Your task to perform on an android device: Show the shopping cart on bestbuy. Add asus rog to the cart on bestbuy Image 0: 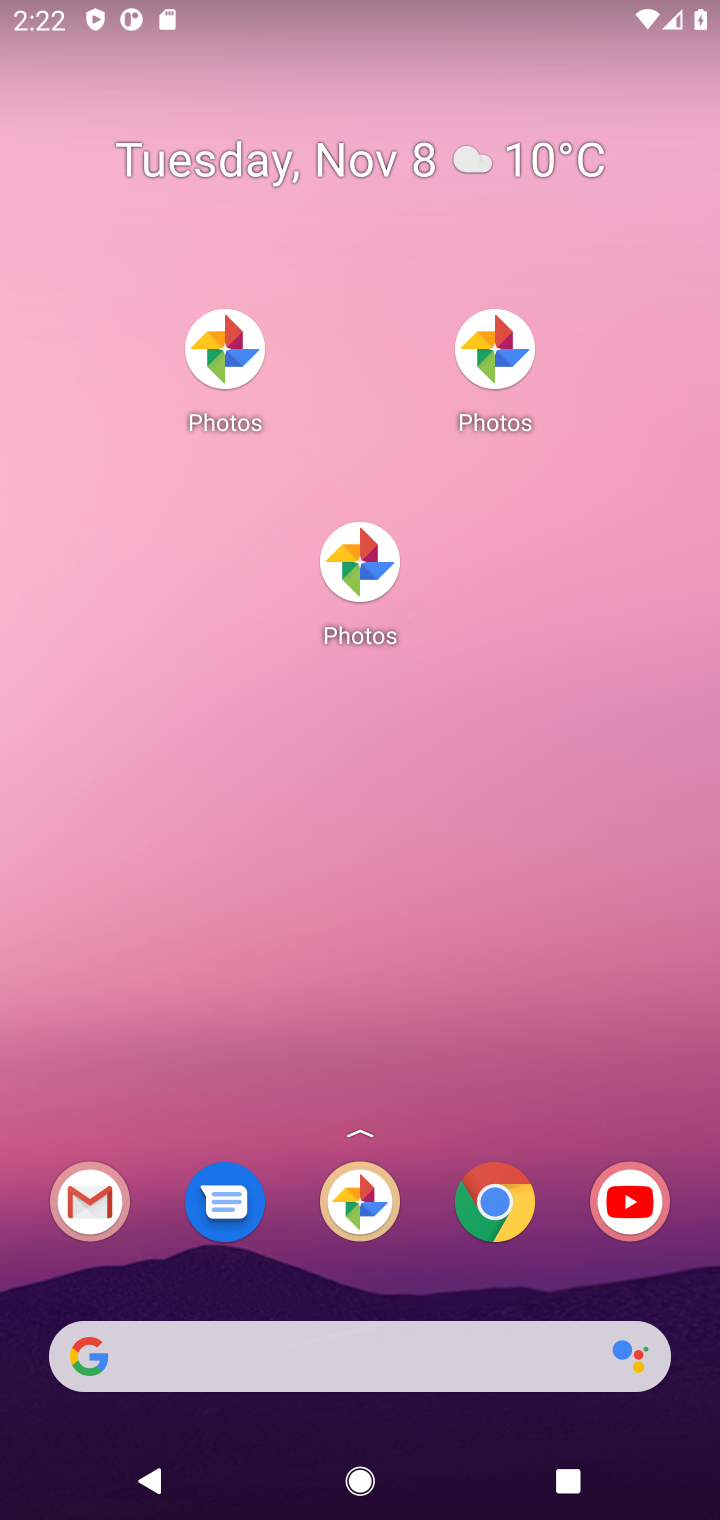
Step 0: drag from (393, 856) to (502, 0)
Your task to perform on an android device: Show the shopping cart on bestbuy. Add asus rog to the cart on bestbuy Image 1: 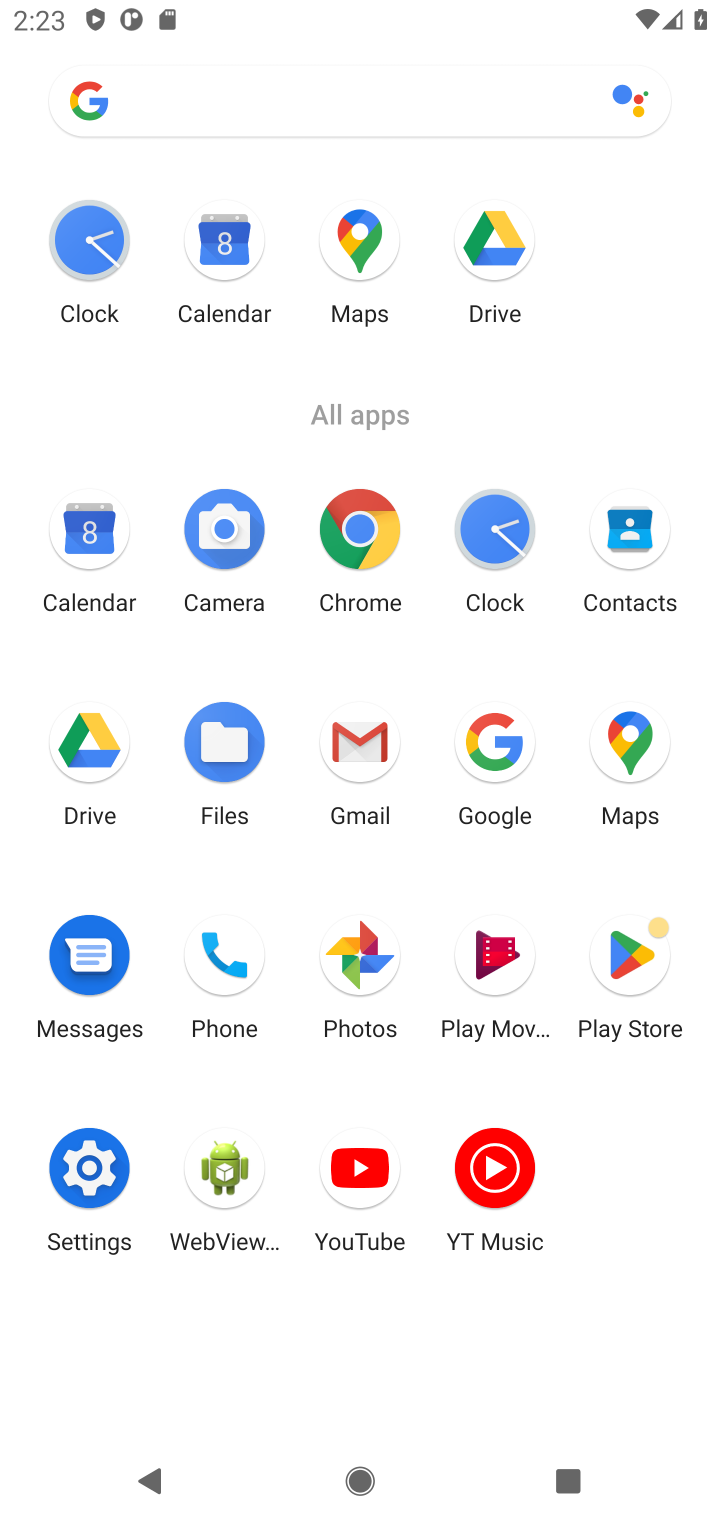
Step 1: click (504, 773)
Your task to perform on an android device: Show the shopping cart on bestbuy. Add asus rog to the cart on bestbuy Image 2: 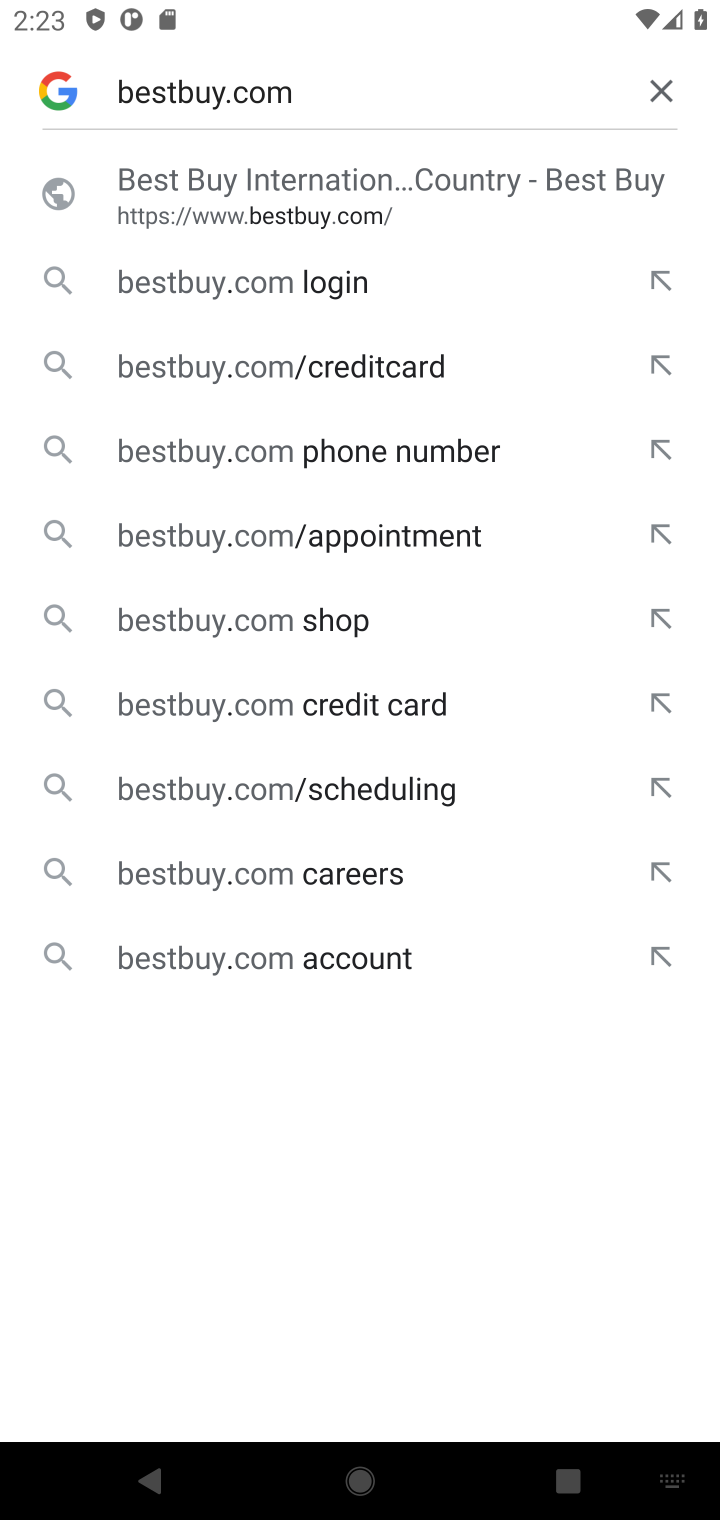
Step 2: click (362, 198)
Your task to perform on an android device: Show the shopping cart on bestbuy. Add asus rog to the cart on bestbuy Image 3: 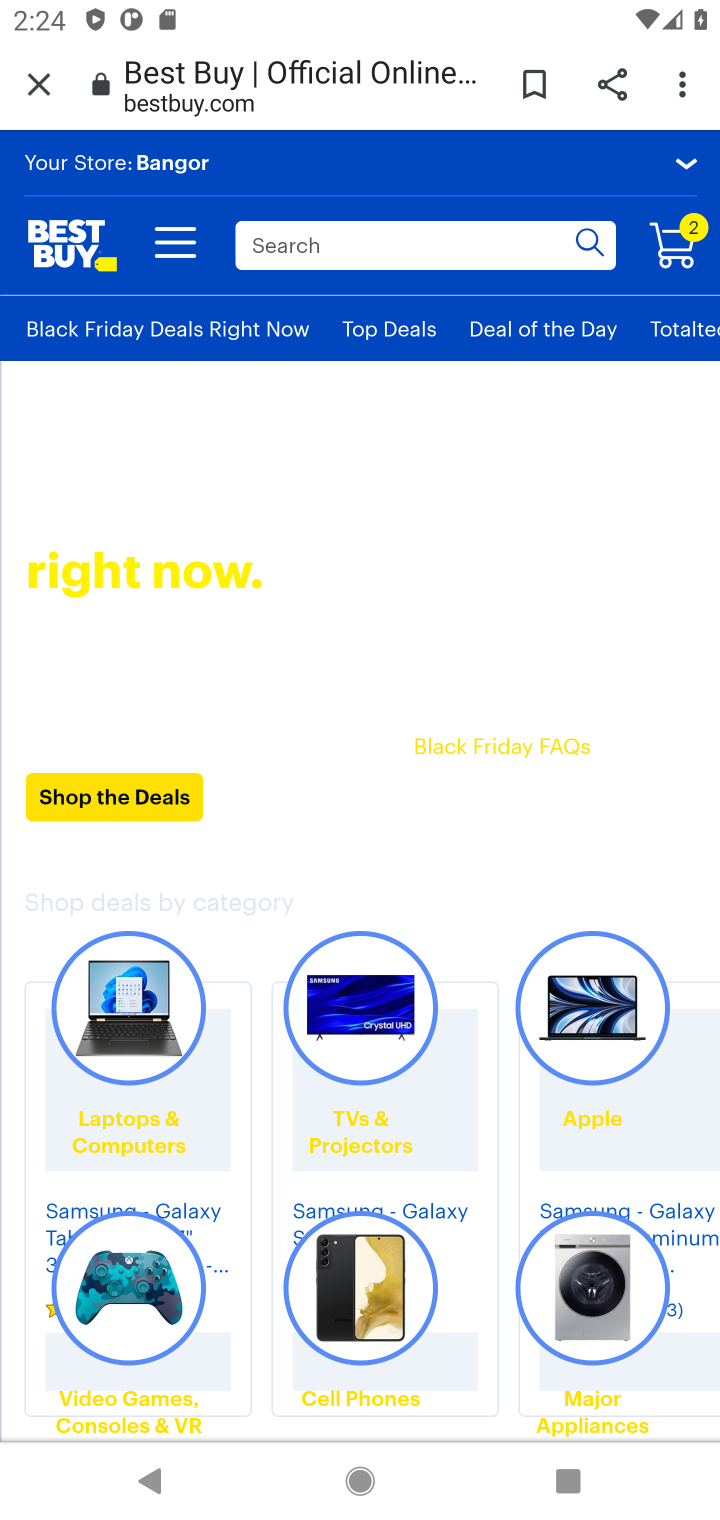
Step 3: click (362, 246)
Your task to perform on an android device: Show the shopping cart on bestbuy. Add asus rog to the cart on bestbuy Image 4: 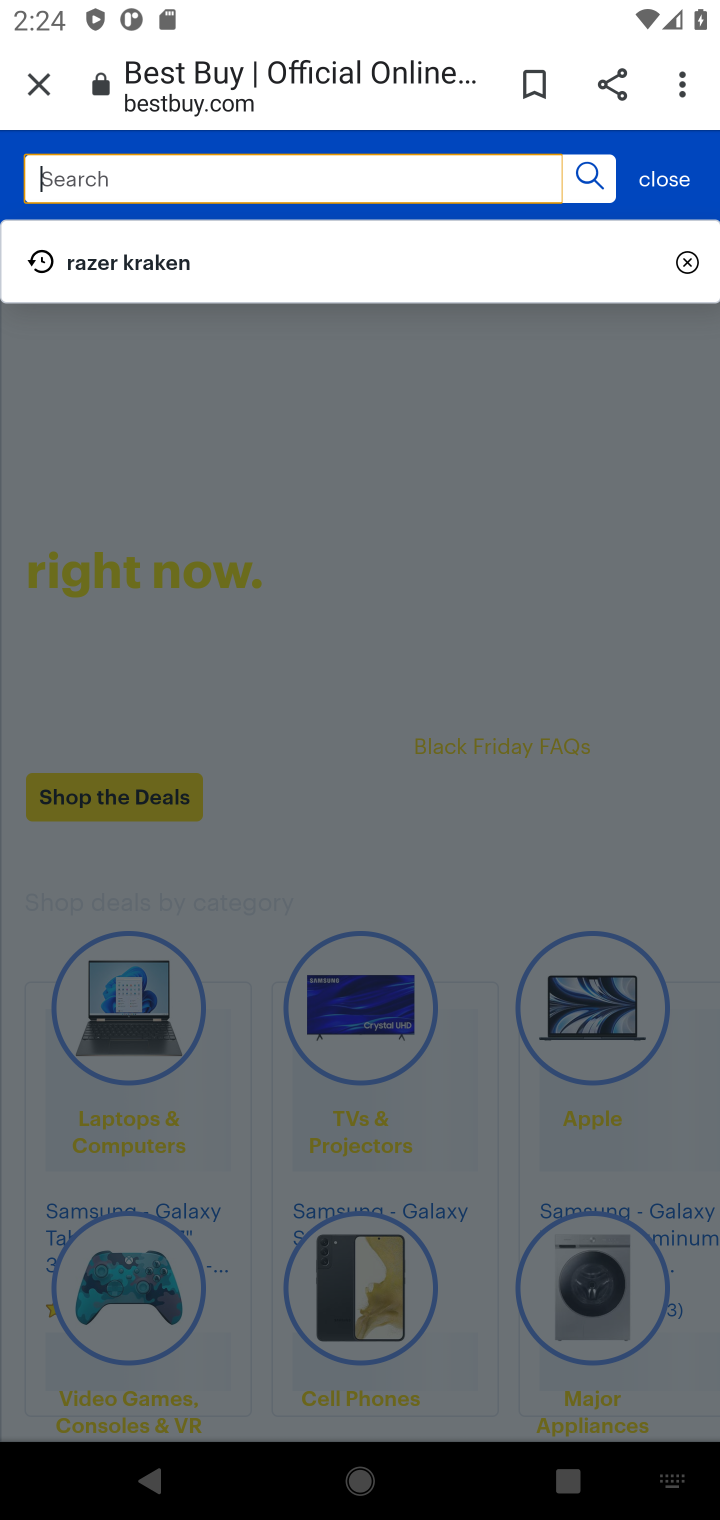
Step 4: type "asus rog"
Your task to perform on an android device: Show the shopping cart on bestbuy. Add asus rog to the cart on bestbuy Image 5: 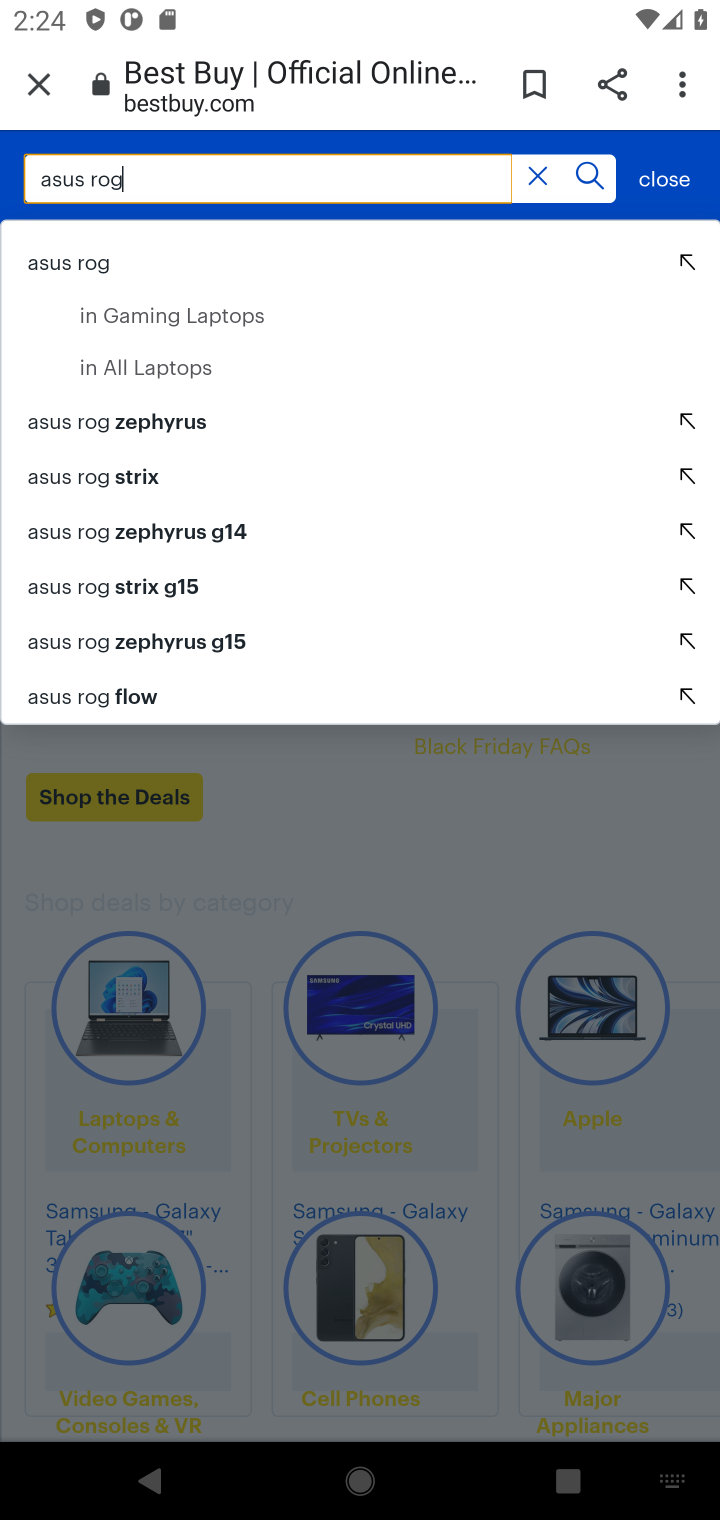
Step 5: click (393, 269)
Your task to perform on an android device: Show the shopping cart on bestbuy. Add asus rog to the cart on bestbuy Image 6: 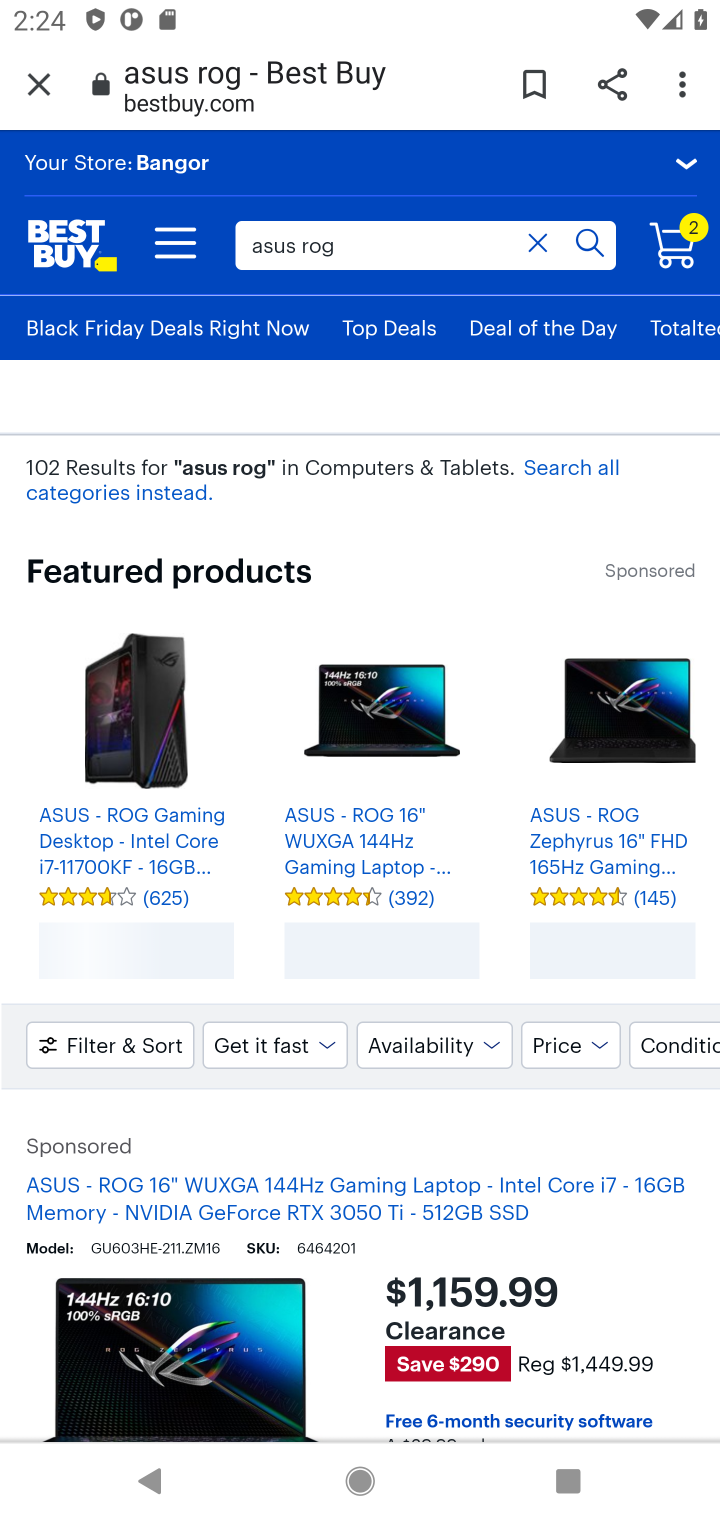
Step 6: click (588, 244)
Your task to perform on an android device: Show the shopping cart on bestbuy. Add asus rog to the cart on bestbuy Image 7: 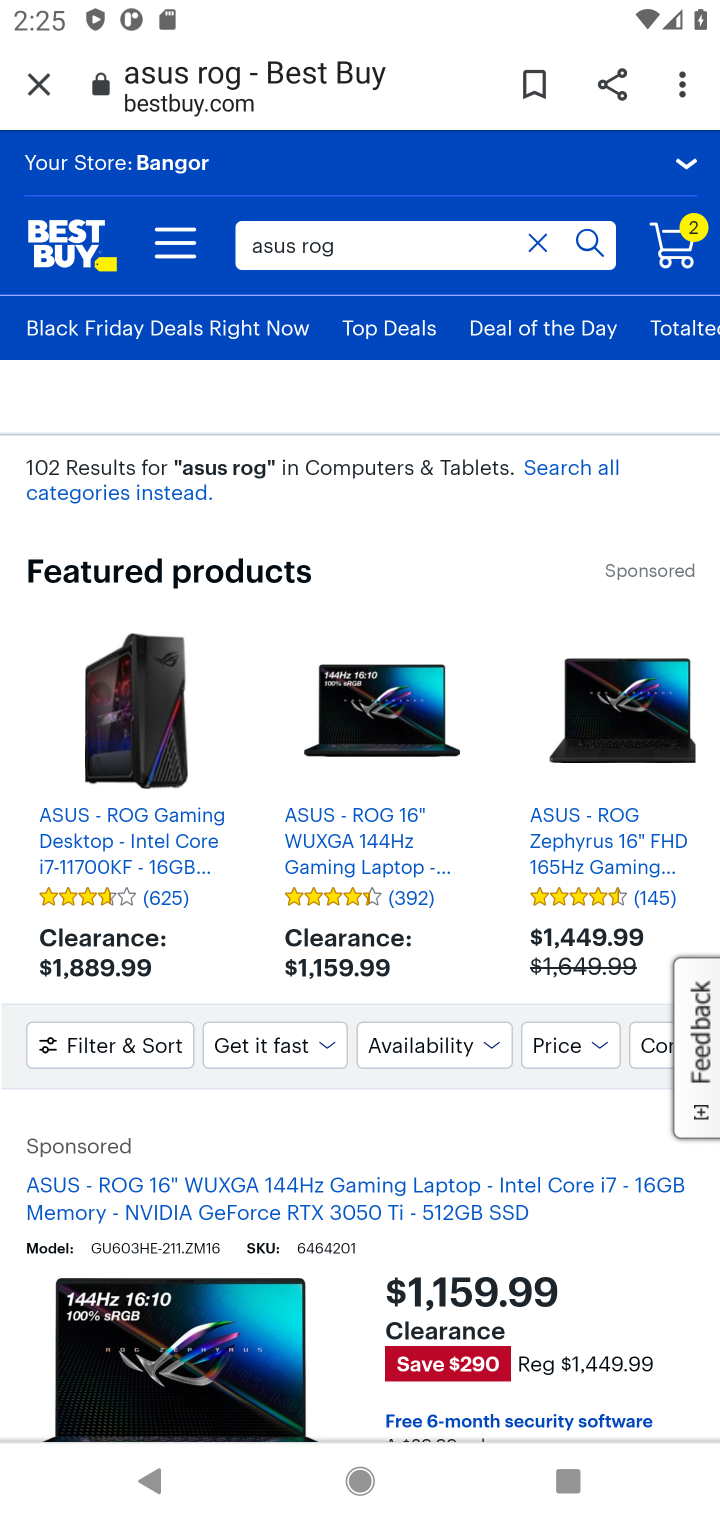
Step 7: click (135, 830)
Your task to perform on an android device: Show the shopping cart on bestbuy. Add asus rog to the cart on bestbuy Image 8: 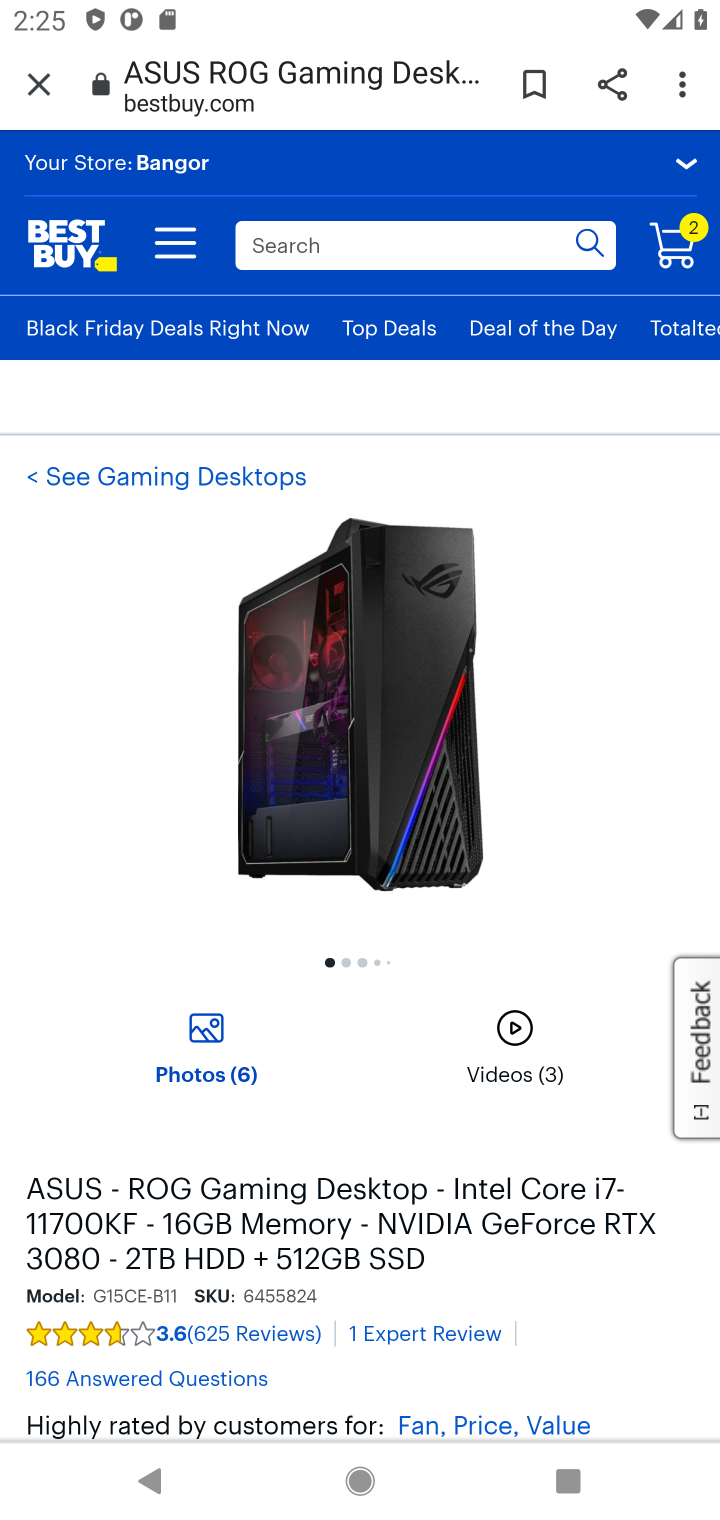
Step 8: drag from (333, 1201) to (330, 401)
Your task to perform on an android device: Show the shopping cart on bestbuy. Add asus rog to the cart on bestbuy Image 9: 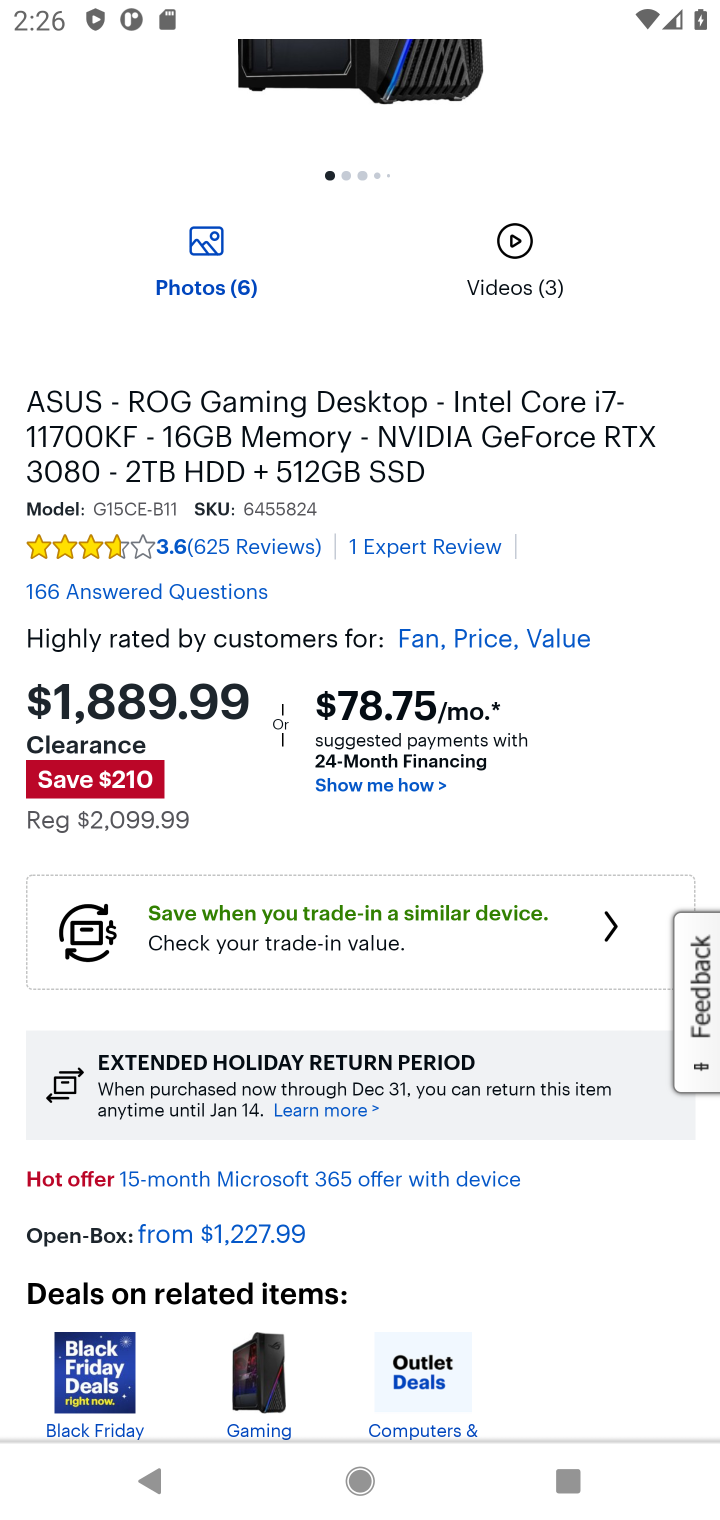
Step 9: drag from (334, 1074) to (336, 9)
Your task to perform on an android device: Show the shopping cart on bestbuy. Add asus rog to the cart on bestbuy Image 10: 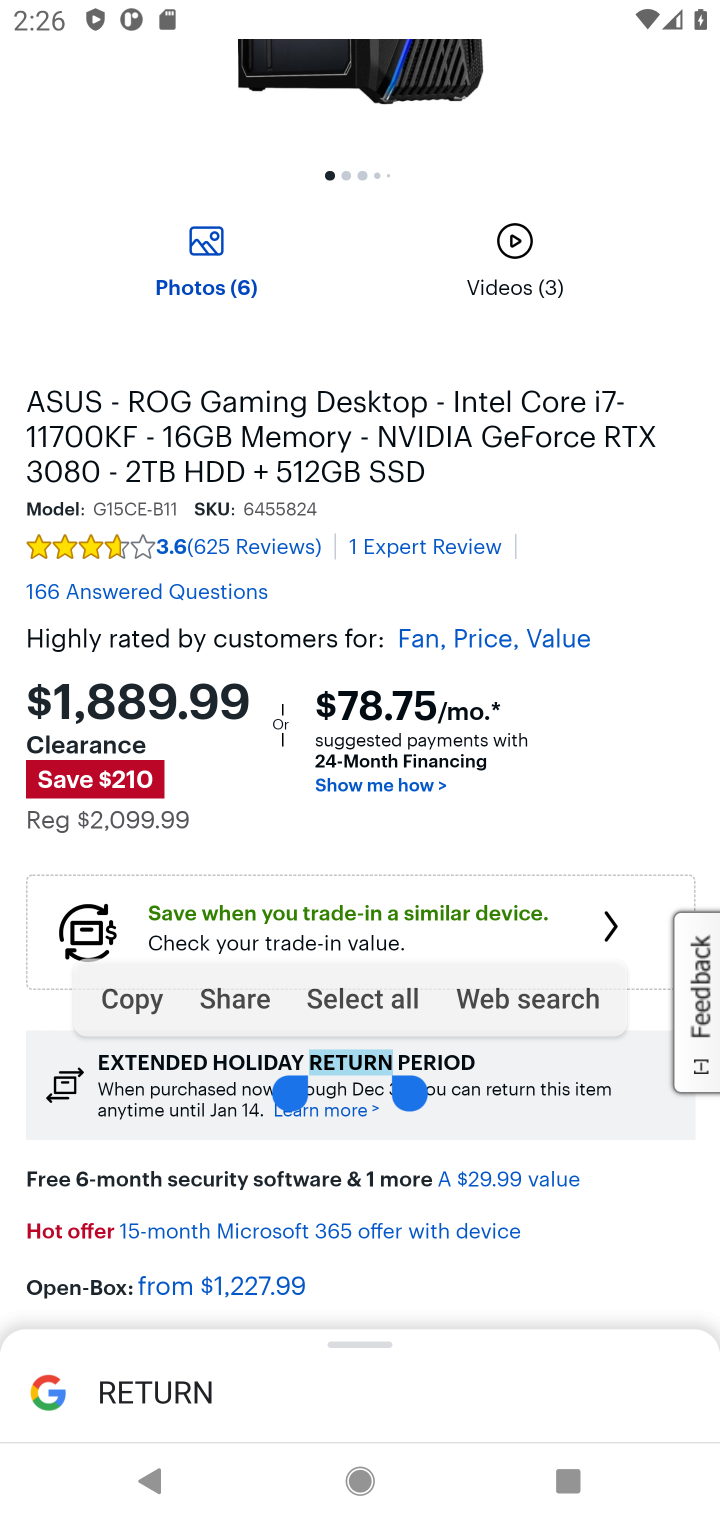
Step 10: click (476, 784)
Your task to perform on an android device: Show the shopping cart on bestbuy. Add asus rog to the cart on bestbuy Image 11: 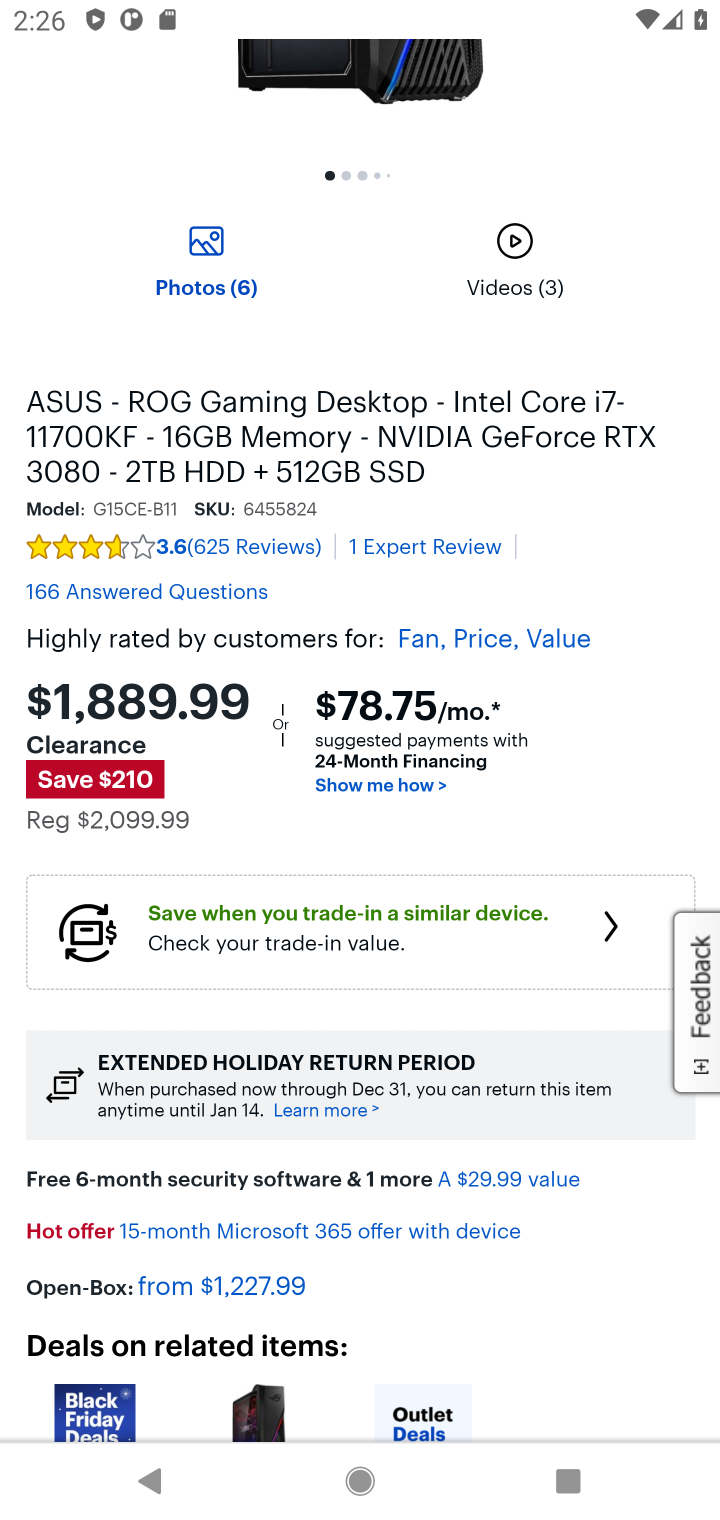
Step 11: click (498, 1111)
Your task to perform on an android device: Show the shopping cart on bestbuy. Add asus rog to the cart on bestbuy Image 12: 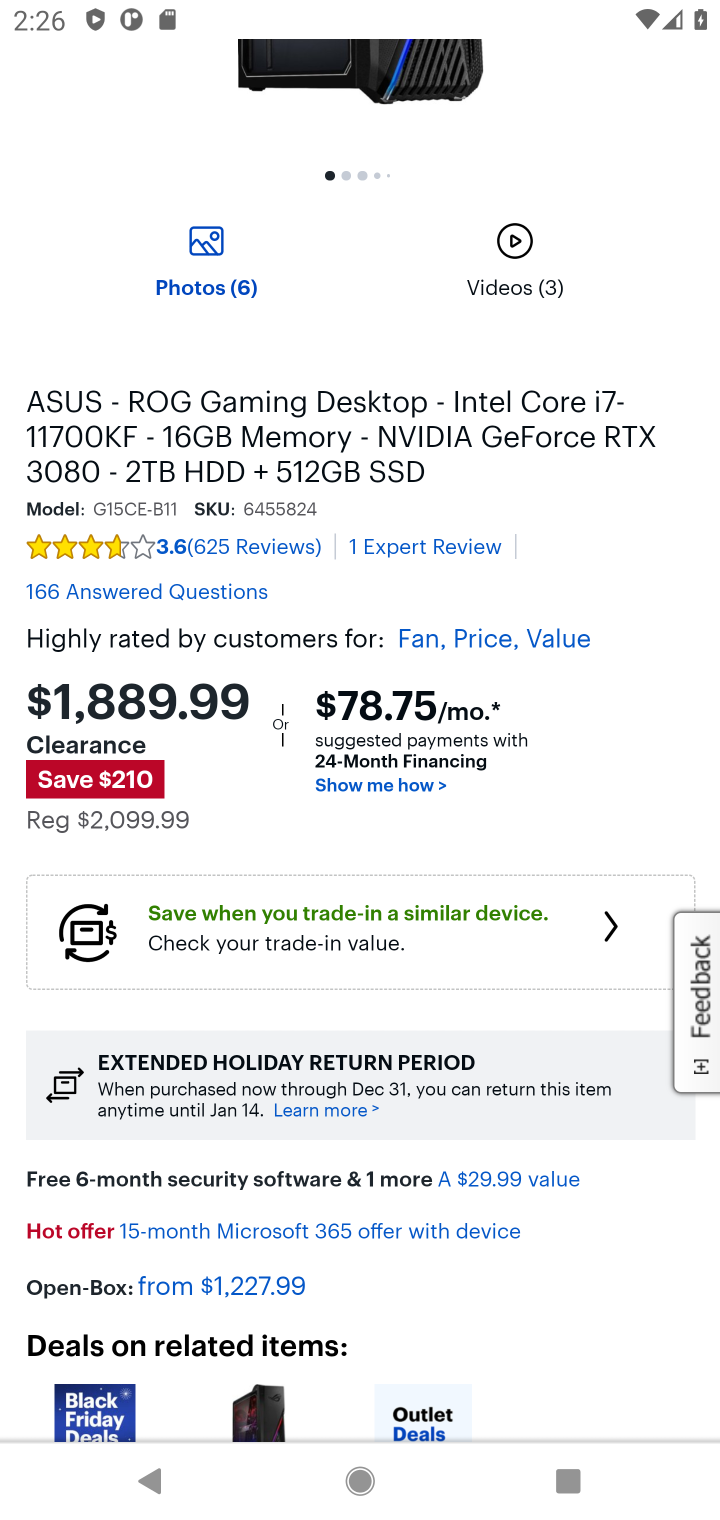
Step 12: drag from (498, 1106) to (526, 375)
Your task to perform on an android device: Show the shopping cart on bestbuy. Add asus rog to the cart on bestbuy Image 13: 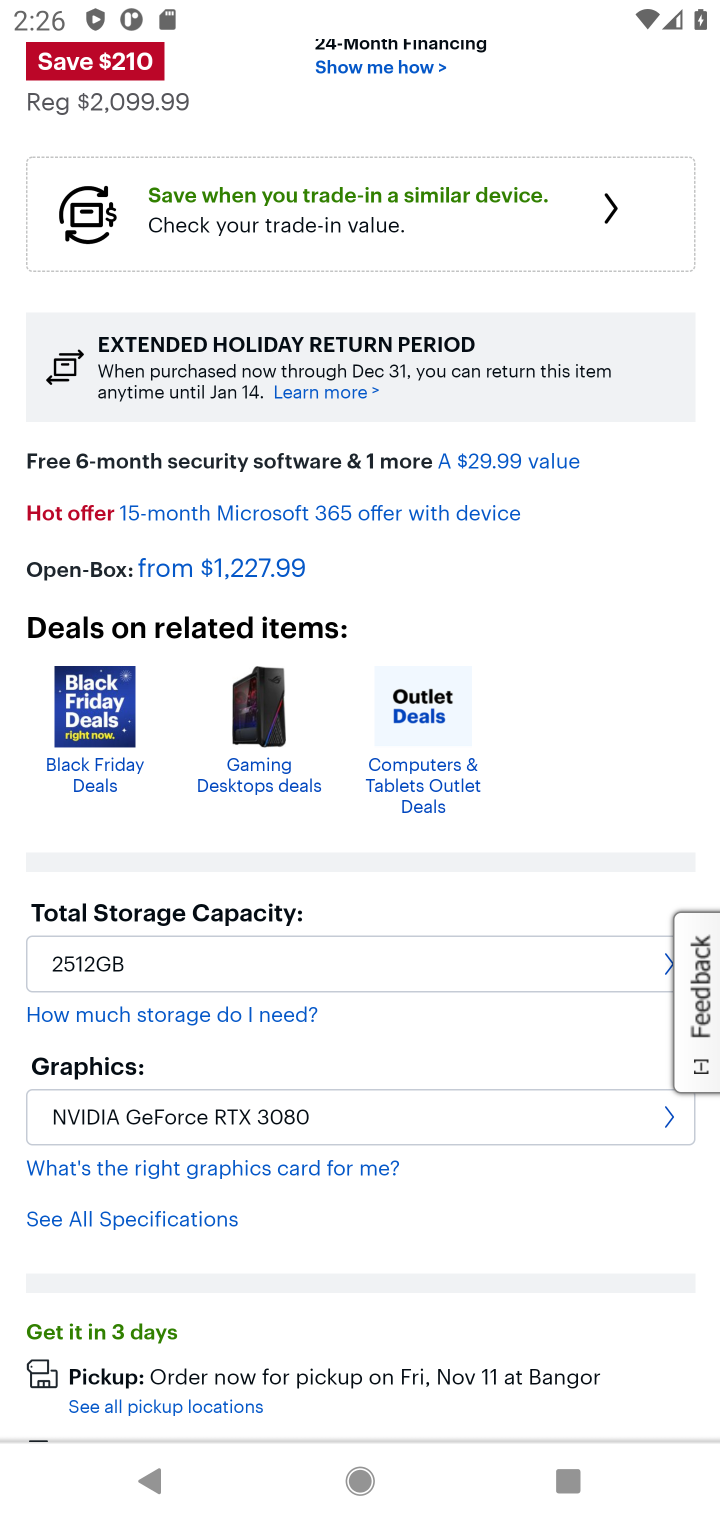
Step 13: drag from (395, 858) to (395, 267)
Your task to perform on an android device: Show the shopping cart on bestbuy. Add asus rog to the cart on bestbuy Image 14: 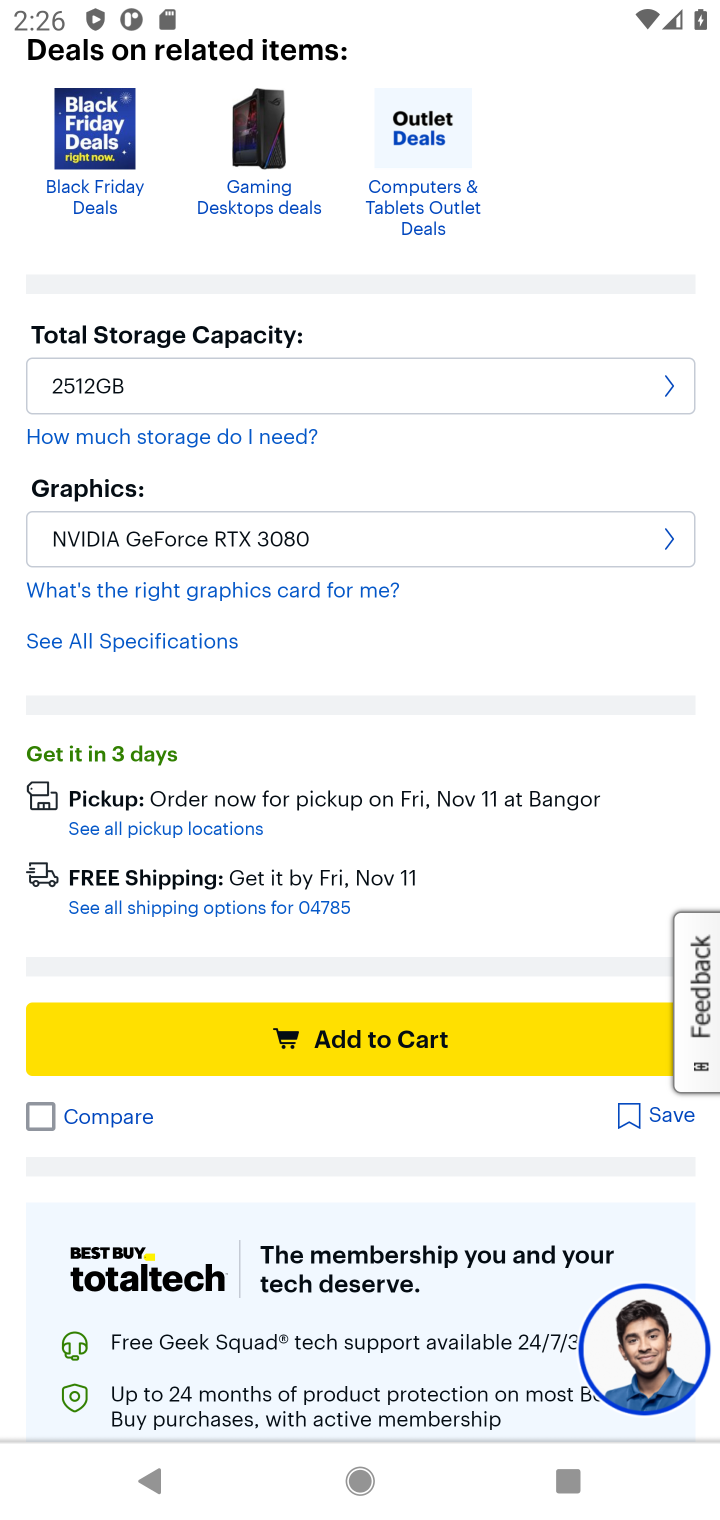
Step 14: click (202, 1044)
Your task to perform on an android device: Show the shopping cart on bestbuy. Add asus rog to the cart on bestbuy Image 15: 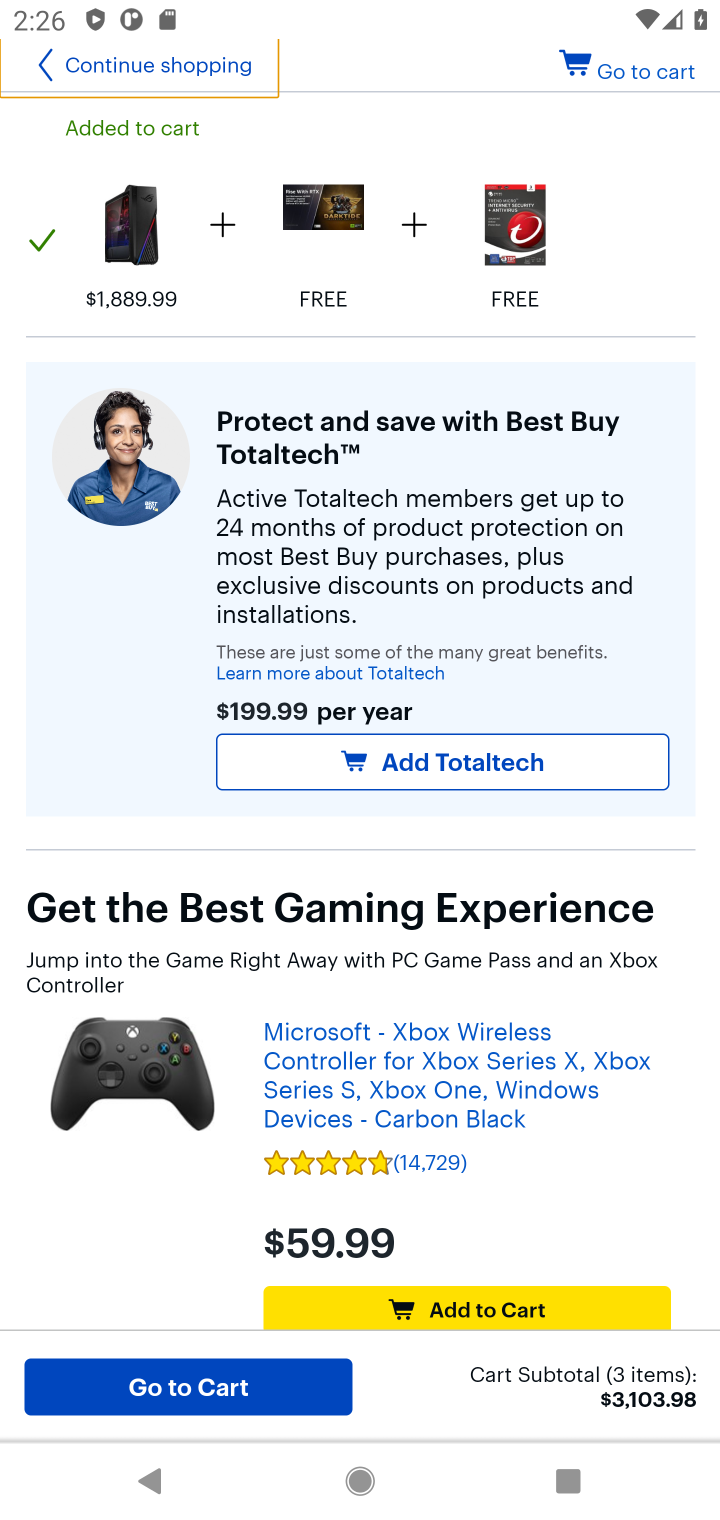
Step 15: task complete